Your task to perform on an android device: Open wifi settings Image 0: 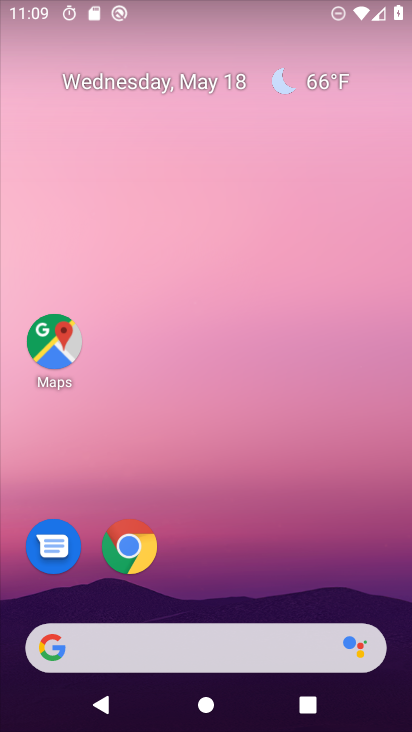
Step 0: drag from (217, 12) to (241, 704)
Your task to perform on an android device: Open wifi settings Image 1: 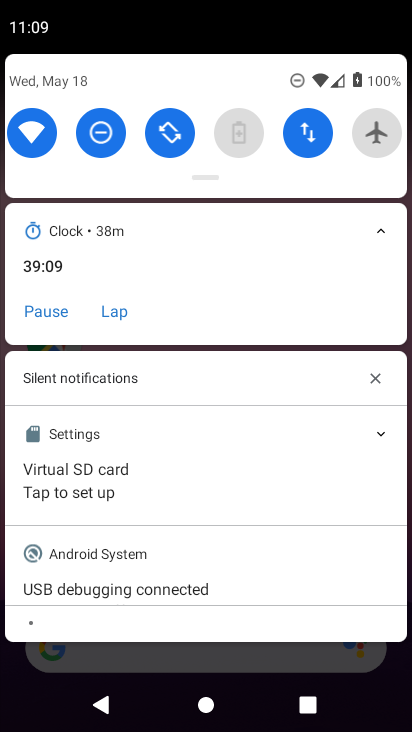
Step 1: click (21, 144)
Your task to perform on an android device: Open wifi settings Image 2: 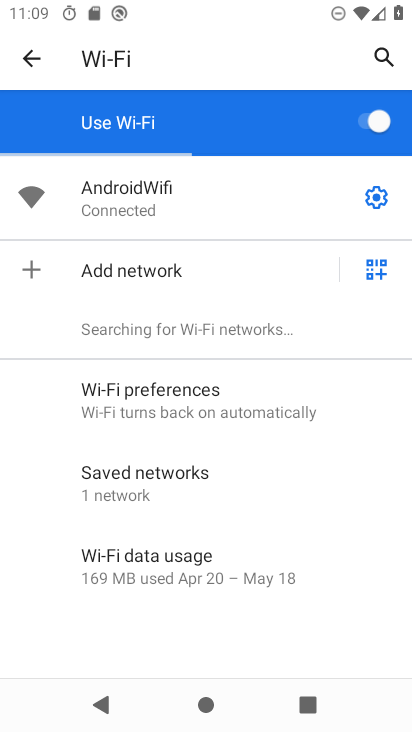
Step 2: task complete